Your task to perform on an android device: How big is the universe? Image 0: 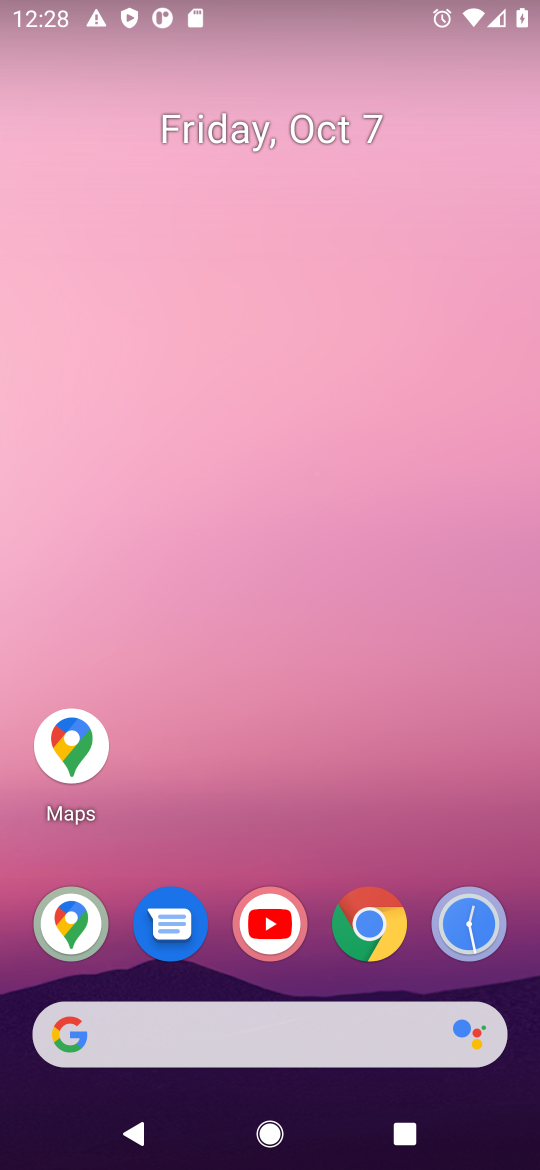
Step 0: click (377, 928)
Your task to perform on an android device: How big is the universe? Image 1: 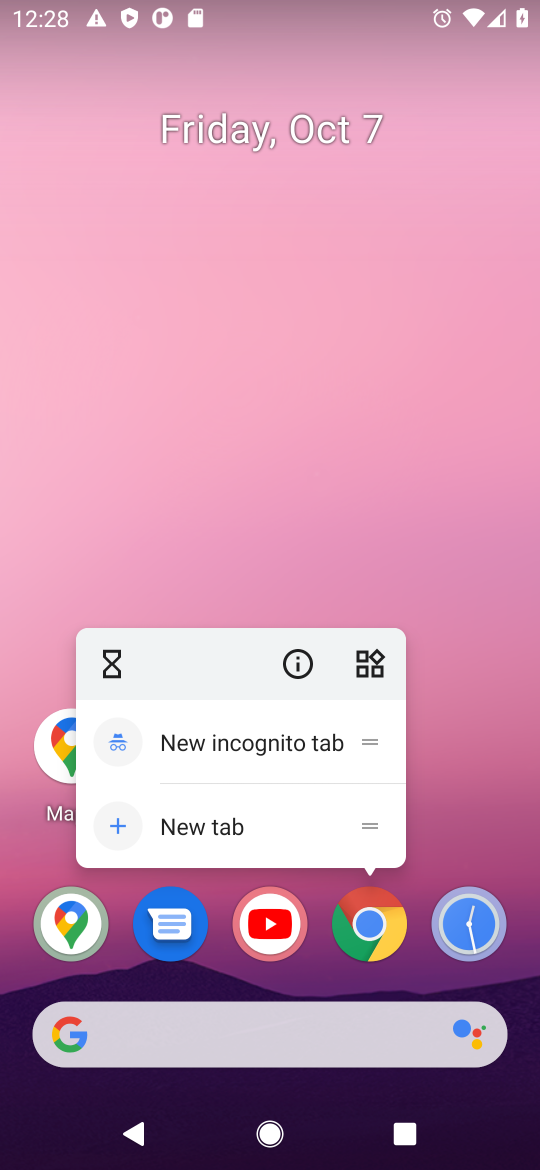
Step 1: click (377, 929)
Your task to perform on an android device: How big is the universe? Image 2: 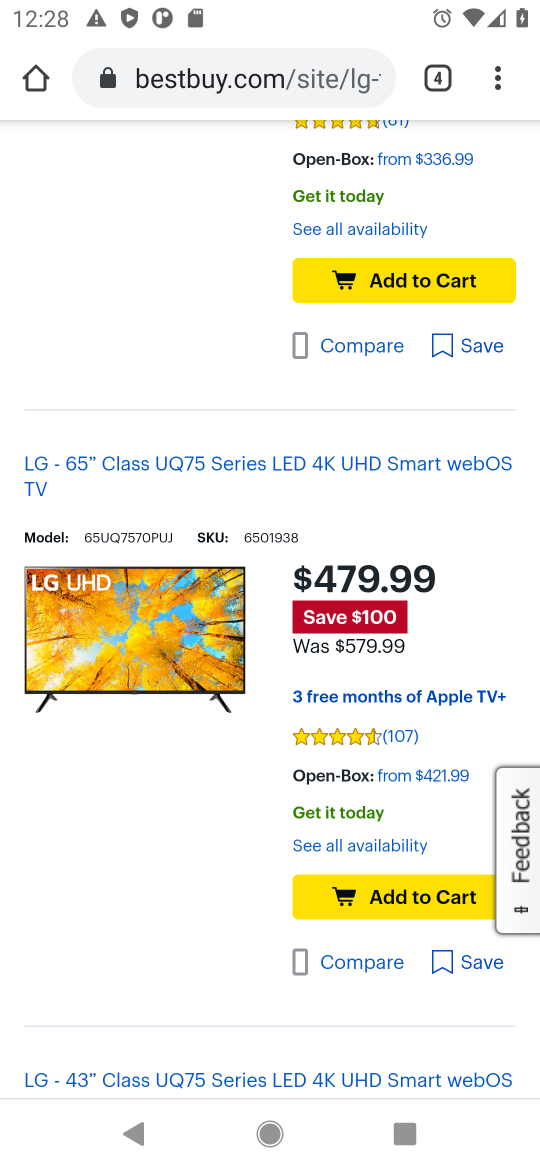
Step 2: click (296, 72)
Your task to perform on an android device: How big is the universe? Image 3: 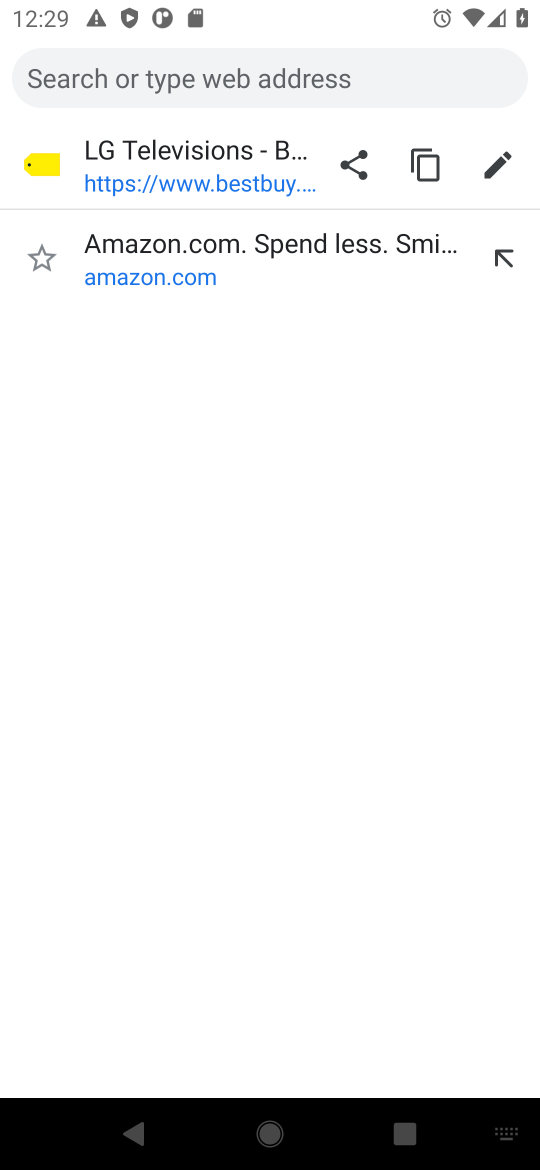
Step 3: type "How big is the universe"
Your task to perform on an android device: How big is the universe? Image 4: 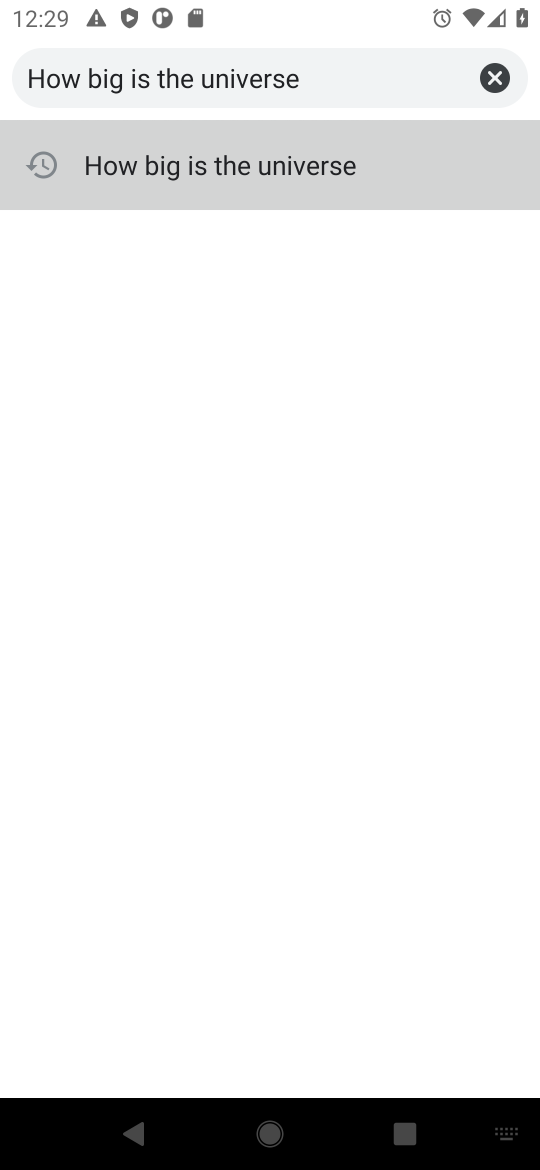
Step 4: click (201, 168)
Your task to perform on an android device: How big is the universe? Image 5: 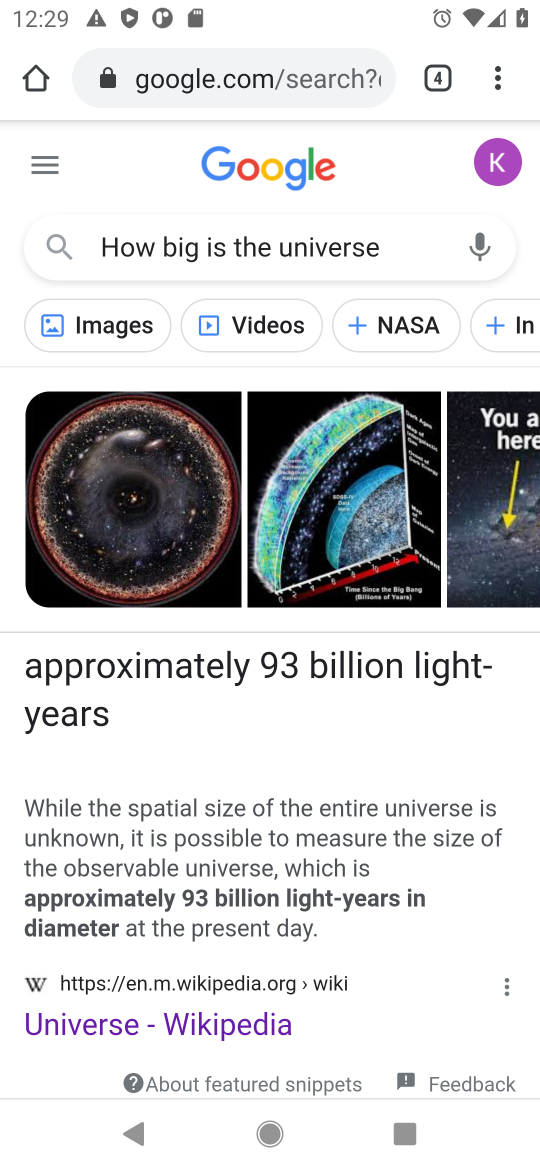
Step 5: drag from (193, 970) to (338, 324)
Your task to perform on an android device: How big is the universe? Image 6: 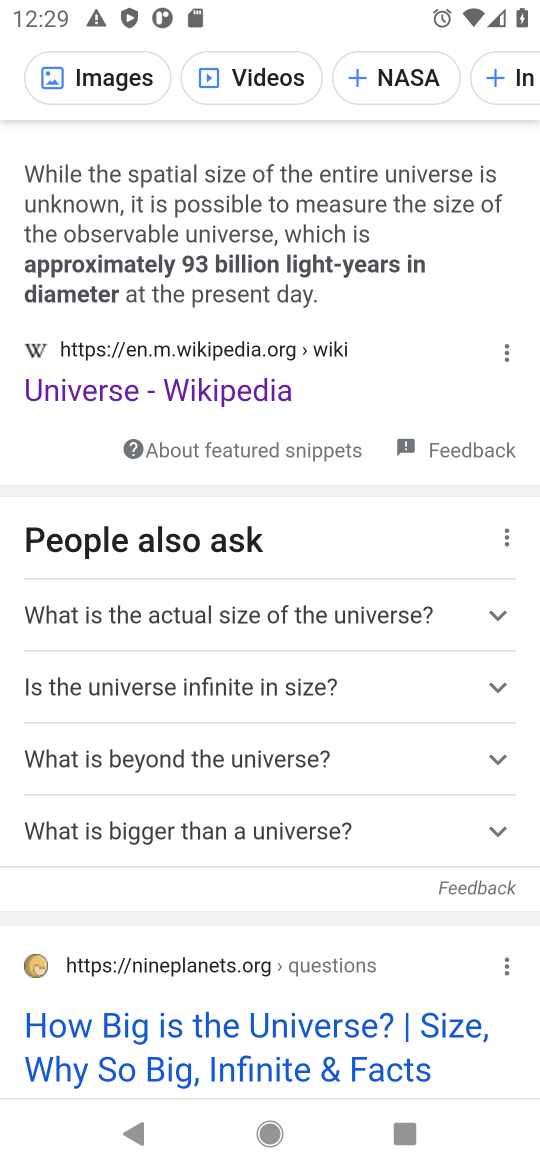
Step 6: click (196, 394)
Your task to perform on an android device: How big is the universe? Image 7: 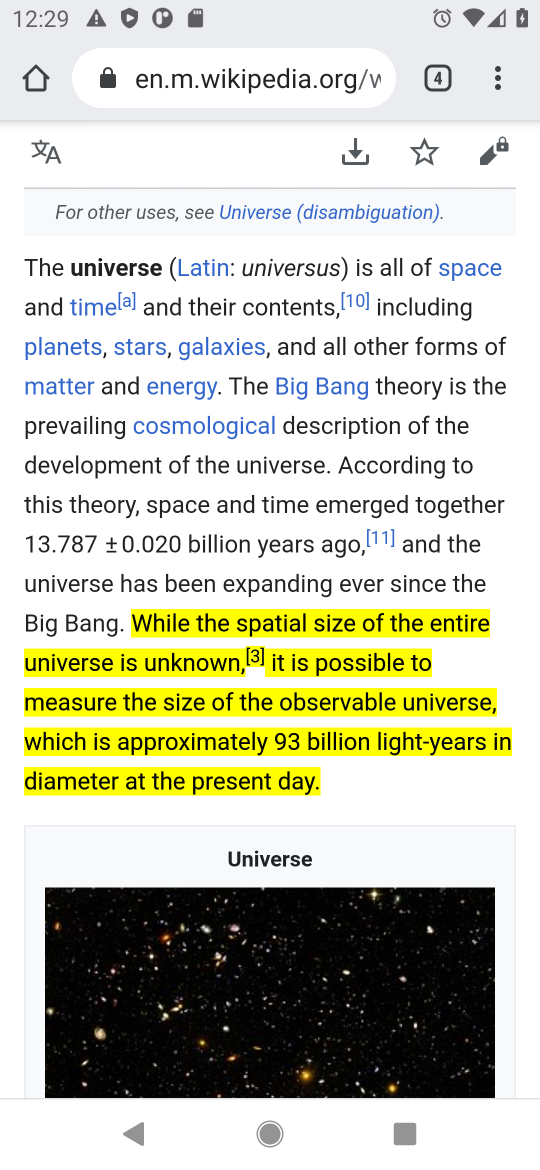
Step 7: task complete